Your task to perform on an android device: turn on sleep mode Image 0: 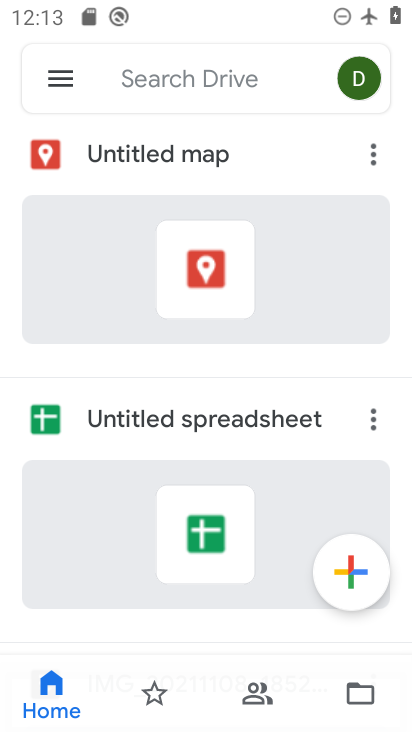
Step 0: press home button
Your task to perform on an android device: turn on sleep mode Image 1: 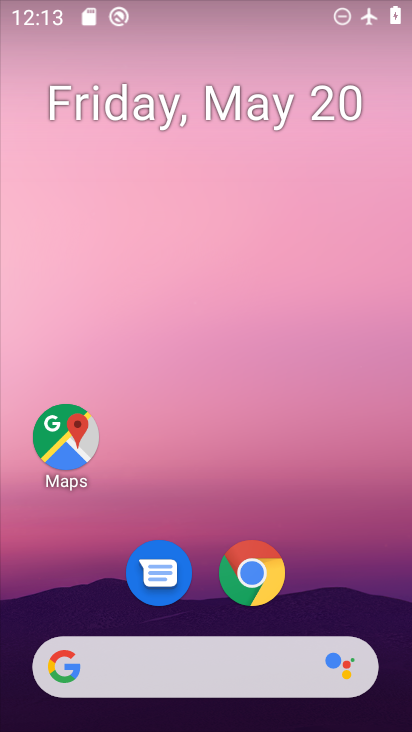
Step 1: drag from (210, 728) to (222, 213)
Your task to perform on an android device: turn on sleep mode Image 2: 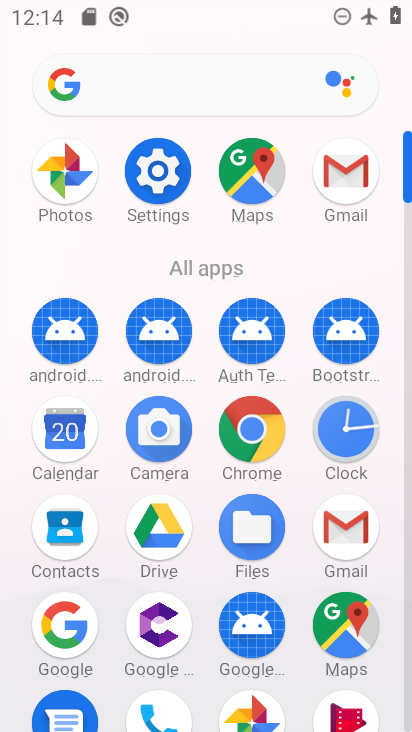
Step 2: click (153, 159)
Your task to perform on an android device: turn on sleep mode Image 3: 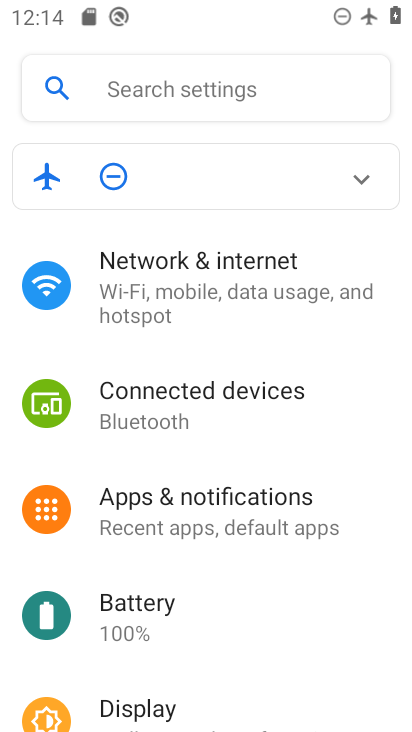
Step 3: task complete